Your task to perform on an android device: Go to location settings Image 0: 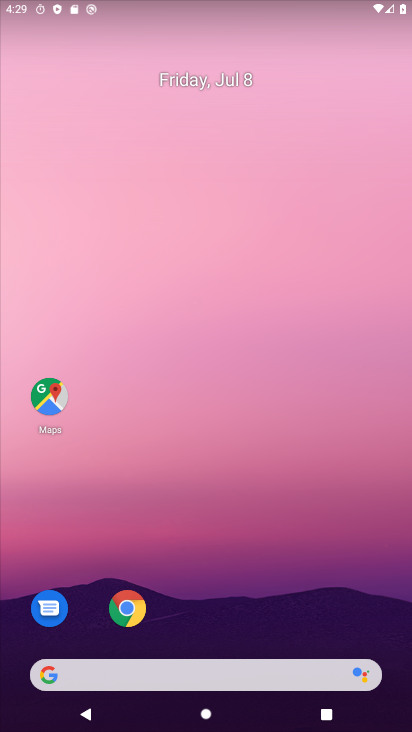
Step 0: drag from (265, 522) to (248, 36)
Your task to perform on an android device: Go to location settings Image 1: 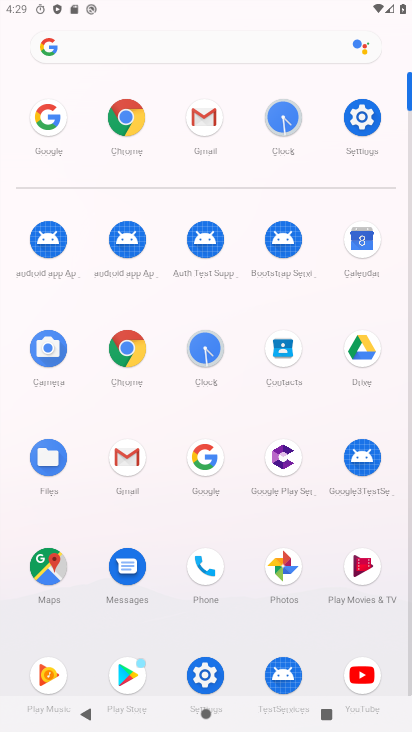
Step 1: click (365, 126)
Your task to perform on an android device: Go to location settings Image 2: 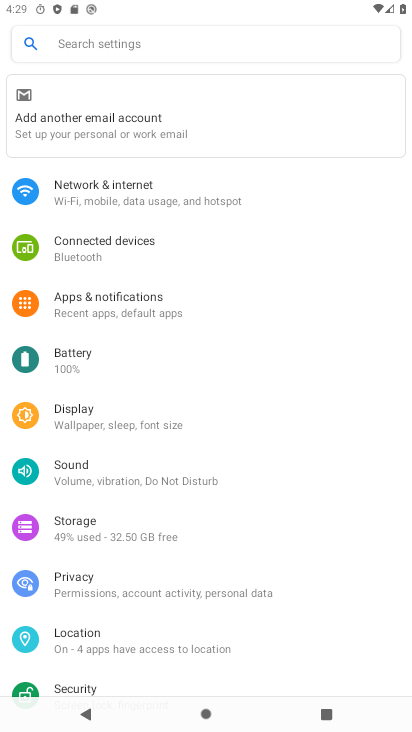
Step 2: click (68, 631)
Your task to perform on an android device: Go to location settings Image 3: 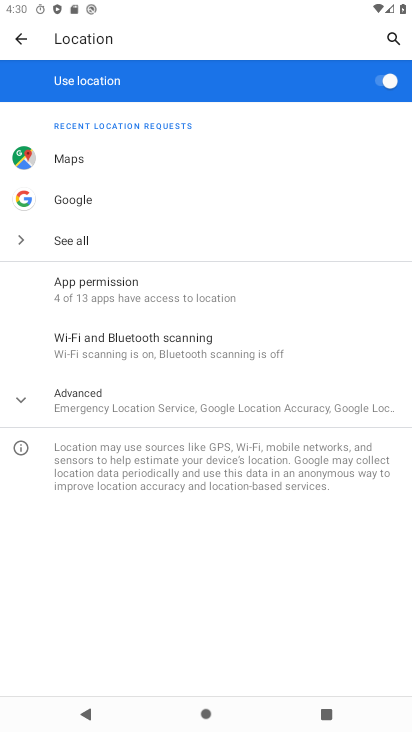
Step 3: task complete